Your task to perform on an android device: What's on my calendar tomorrow? Image 0: 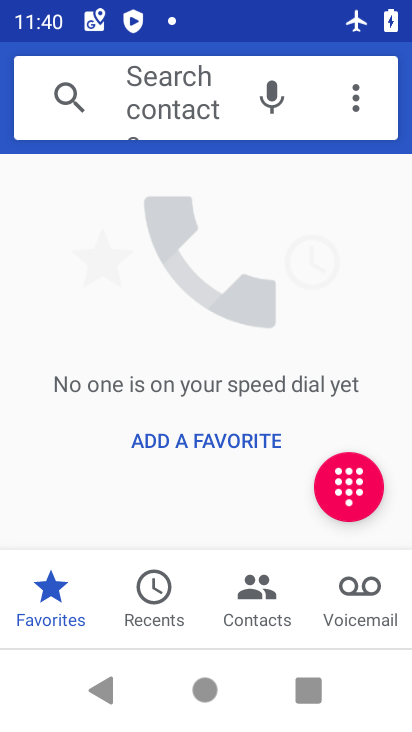
Step 0: press home button
Your task to perform on an android device: What's on my calendar tomorrow? Image 1: 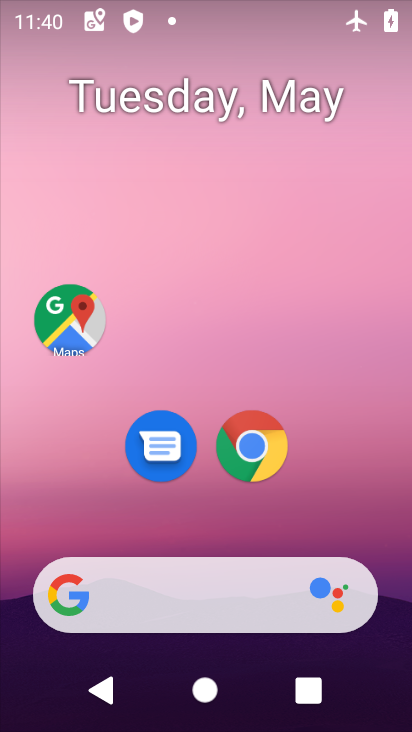
Step 1: drag from (223, 724) to (270, 128)
Your task to perform on an android device: What's on my calendar tomorrow? Image 2: 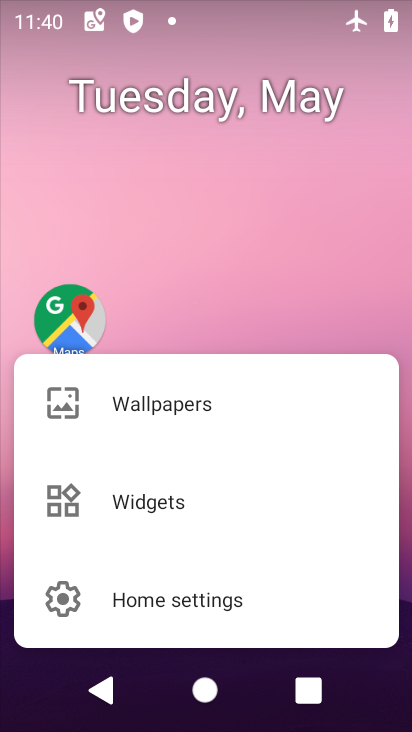
Step 2: click (154, 269)
Your task to perform on an android device: What's on my calendar tomorrow? Image 3: 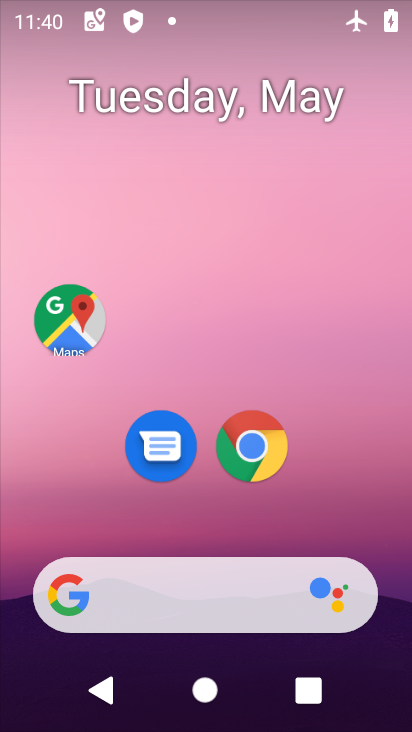
Step 3: drag from (226, 725) to (229, 111)
Your task to perform on an android device: What's on my calendar tomorrow? Image 4: 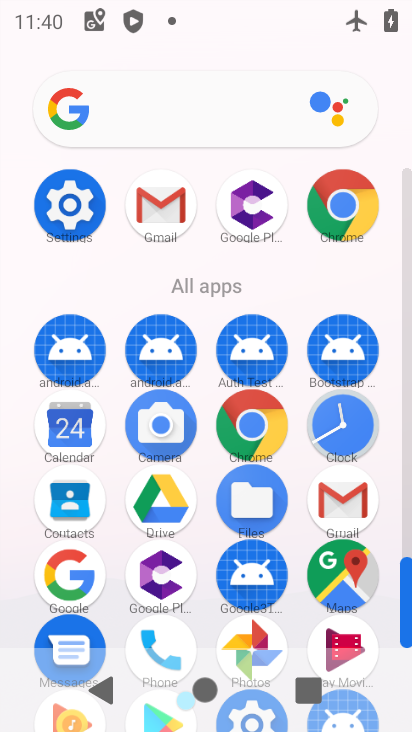
Step 4: click (71, 439)
Your task to perform on an android device: What's on my calendar tomorrow? Image 5: 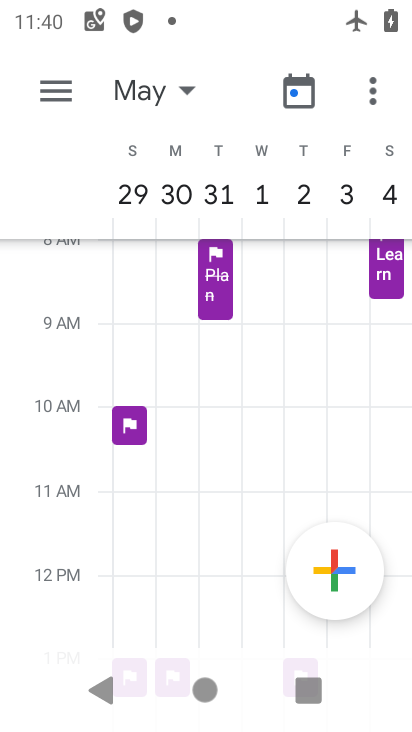
Step 5: click (189, 89)
Your task to perform on an android device: What's on my calendar tomorrow? Image 6: 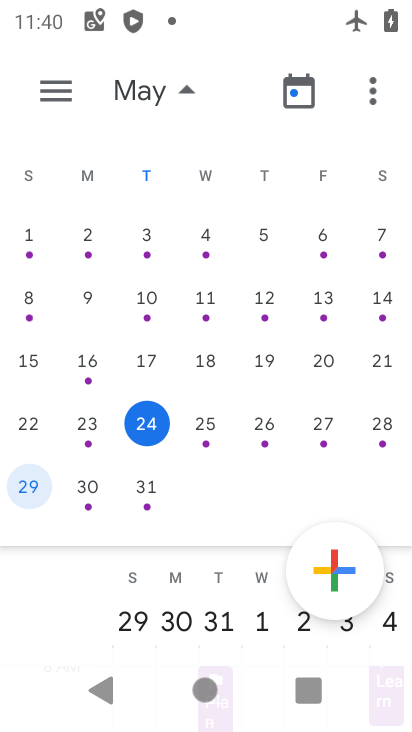
Step 6: click (210, 421)
Your task to perform on an android device: What's on my calendar tomorrow? Image 7: 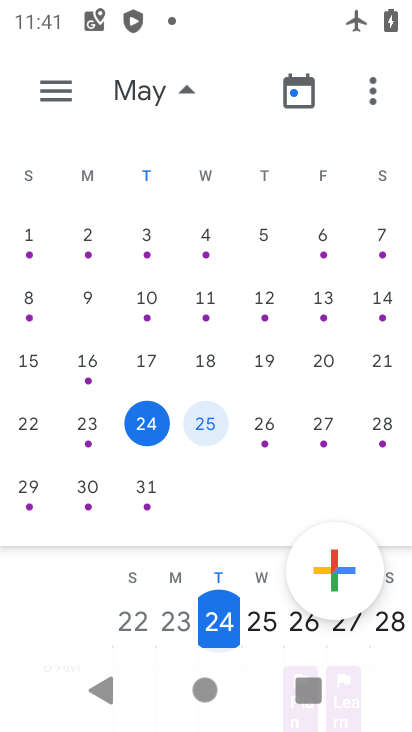
Step 7: click (203, 424)
Your task to perform on an android device: What's on my calendar tomorrow? Image 8: 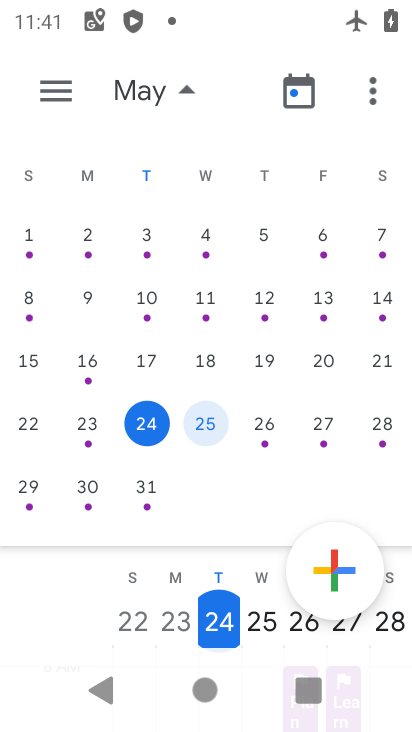
Step 8: click (220, 606)
Your task to perform on an android device: What's on my calendar tomorrow? Image 9: 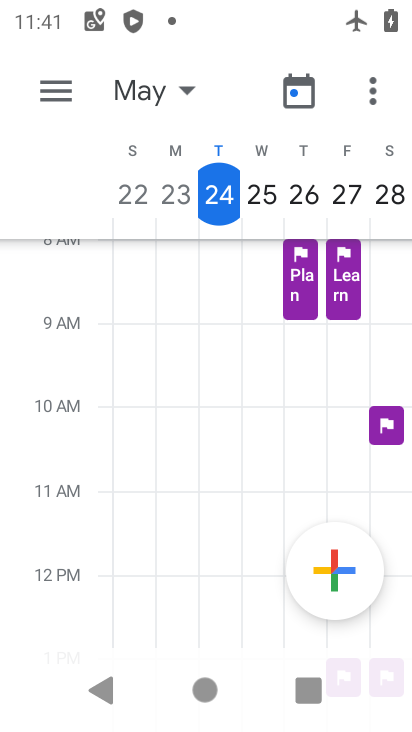
Step 9: task complete